Your task to perform on an android device: Open the calendar and show me this week's events? Image 0: 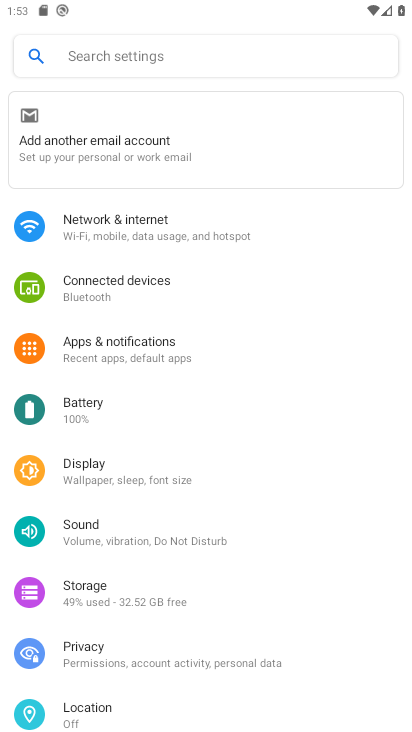
Step 0: press back button
Your task to perform on an android device: Open the calendar and show me this week's events? Image 1: 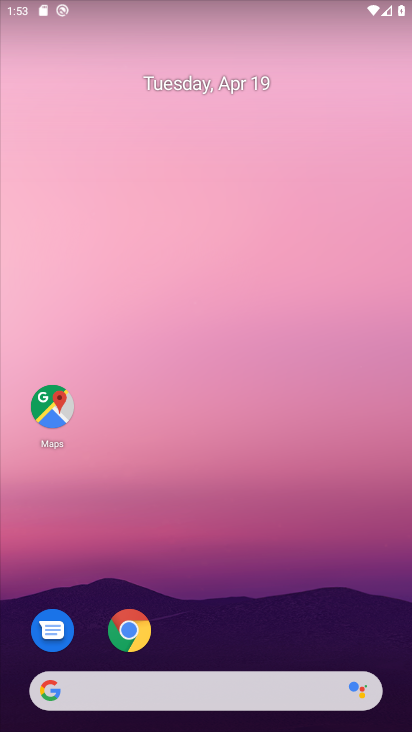
Step 1: drag from (255, 582) to (320, 105)
Your task to perform on an android device: Open the calendar and show me this week's events? Image 2: 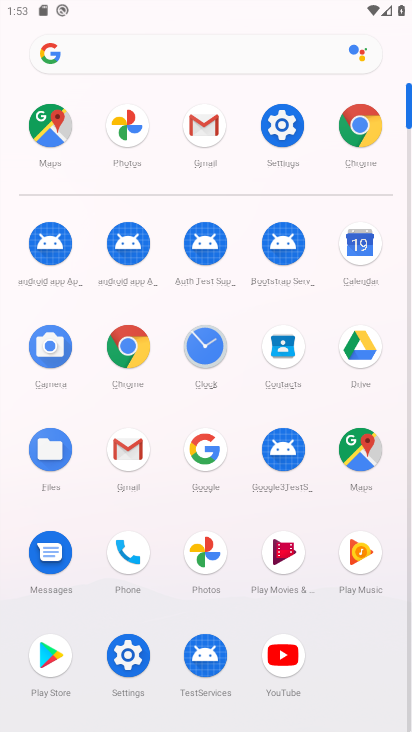
Step 2: click (360, 256)
Your task to perform on an android device: Open the calendar and show me this week's events? Image 3: 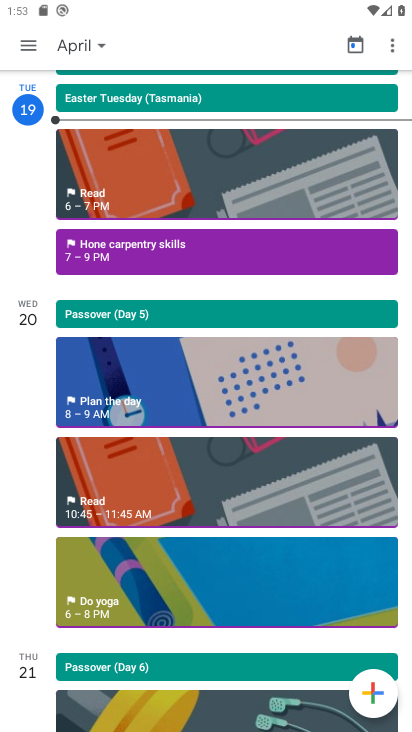
Step 3: click (91, 43)
Your task to perform on an android device: Open the calendar and show me this week's events? Image 4: 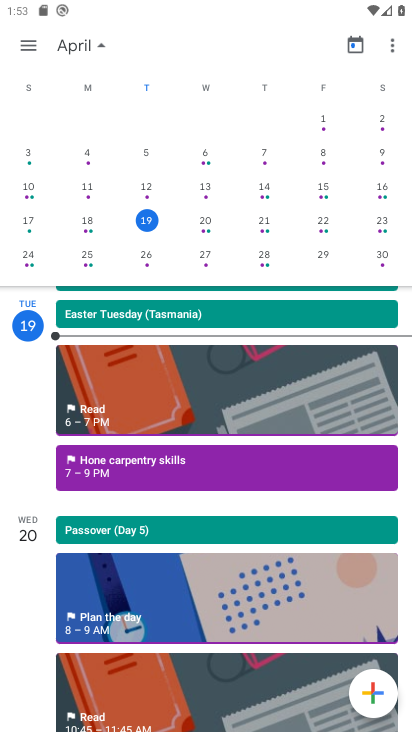
Step 4: click (207, 223)
Your task to perform on an android device: Open the calendar and show me this week's events? Image 5: 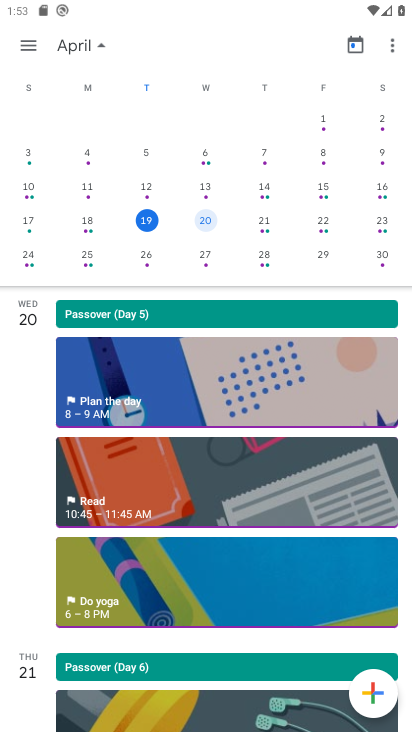
Step 5: click (262, 220)
Your task to perform on an android device: Open the calendar and show me this week's events? Image 6: 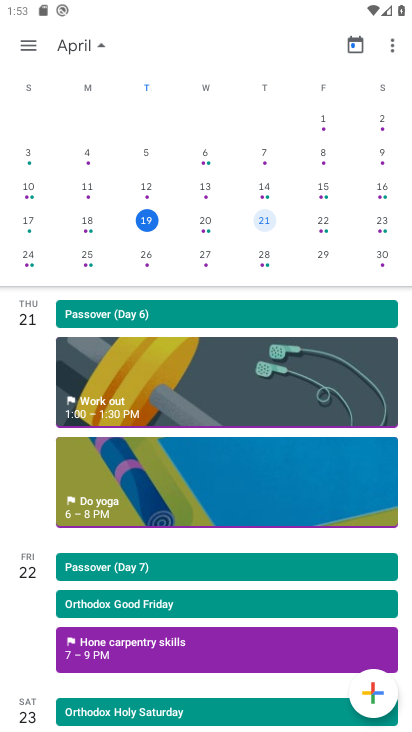
Step 6: click (334, 217)
Your task to perform on an android device: Open the calendar and show me this week's events? Image 7: 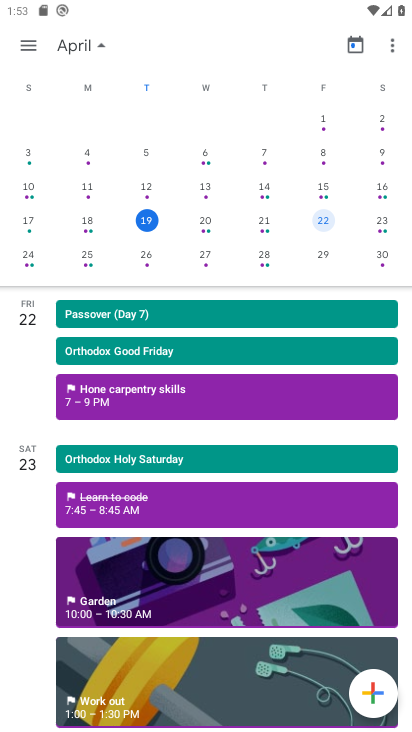
Step 7: click (378, 225)
Your task to perform on an android device: Open the calendar and show me this week's events? Image 8: 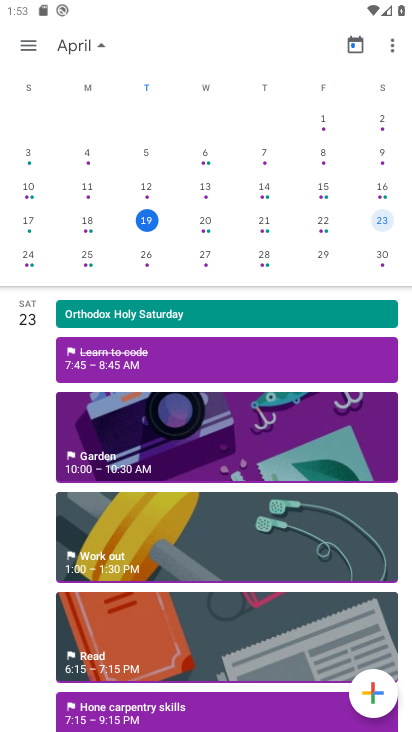
Step 8: task complete